Your task to perform on an android device: Clear the cart on target. Add macbook air to the cart on target, then select checkout. Image 0: 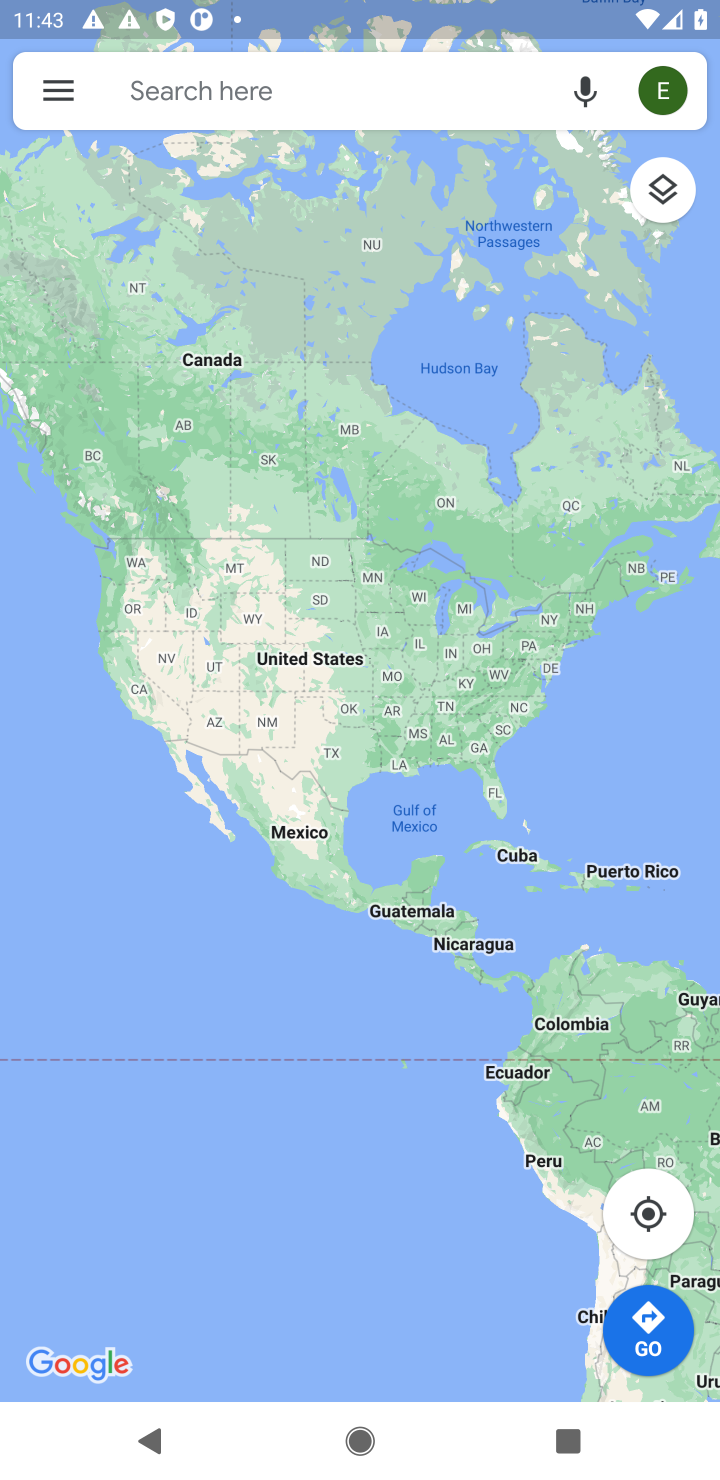
Step 0: press home button
Your task to perform on an android device: Clear the cart on target. Add macbook air to the cart on target, then select checkout. Image 1: 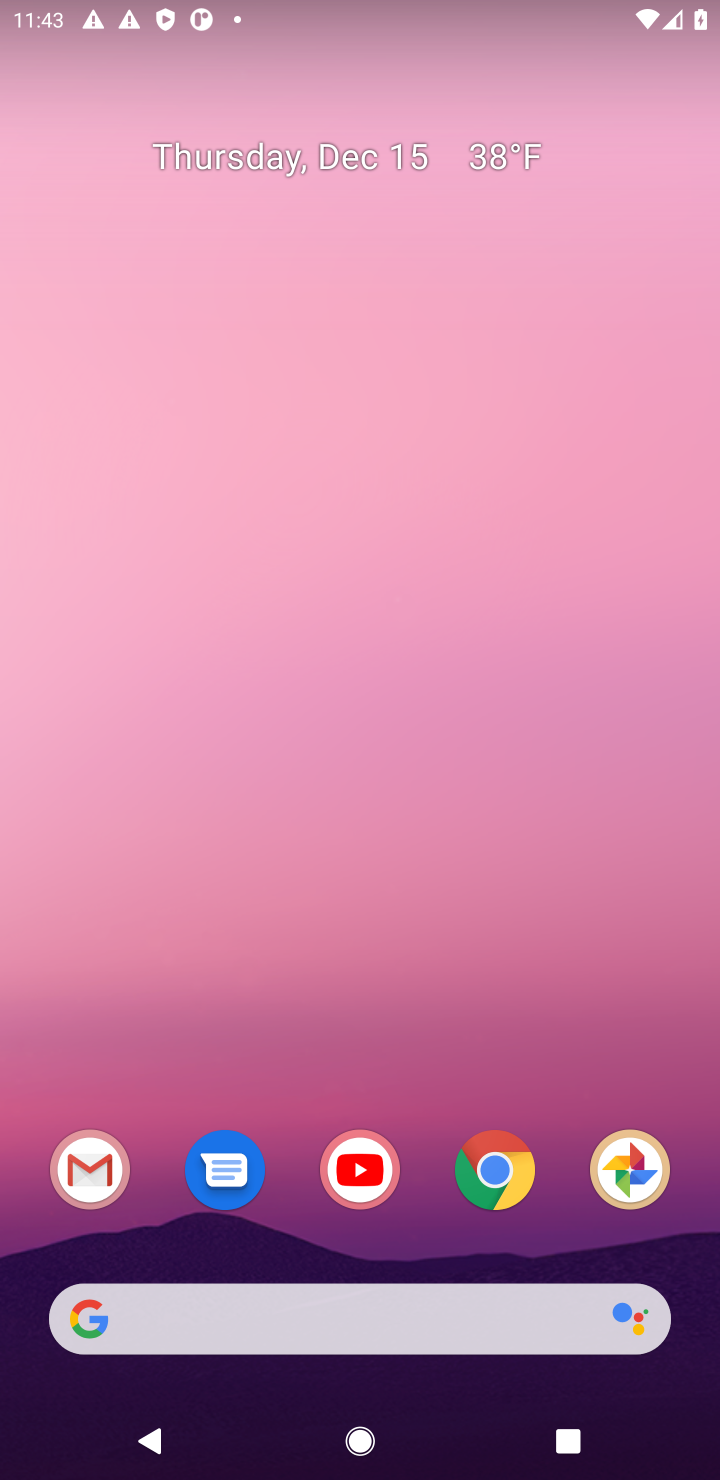
Step 1: click (488, 1184)
Your task to perform on an android device: Clear the cart on target. Add macbook air to the cart on target, then select checkout. Image 2: 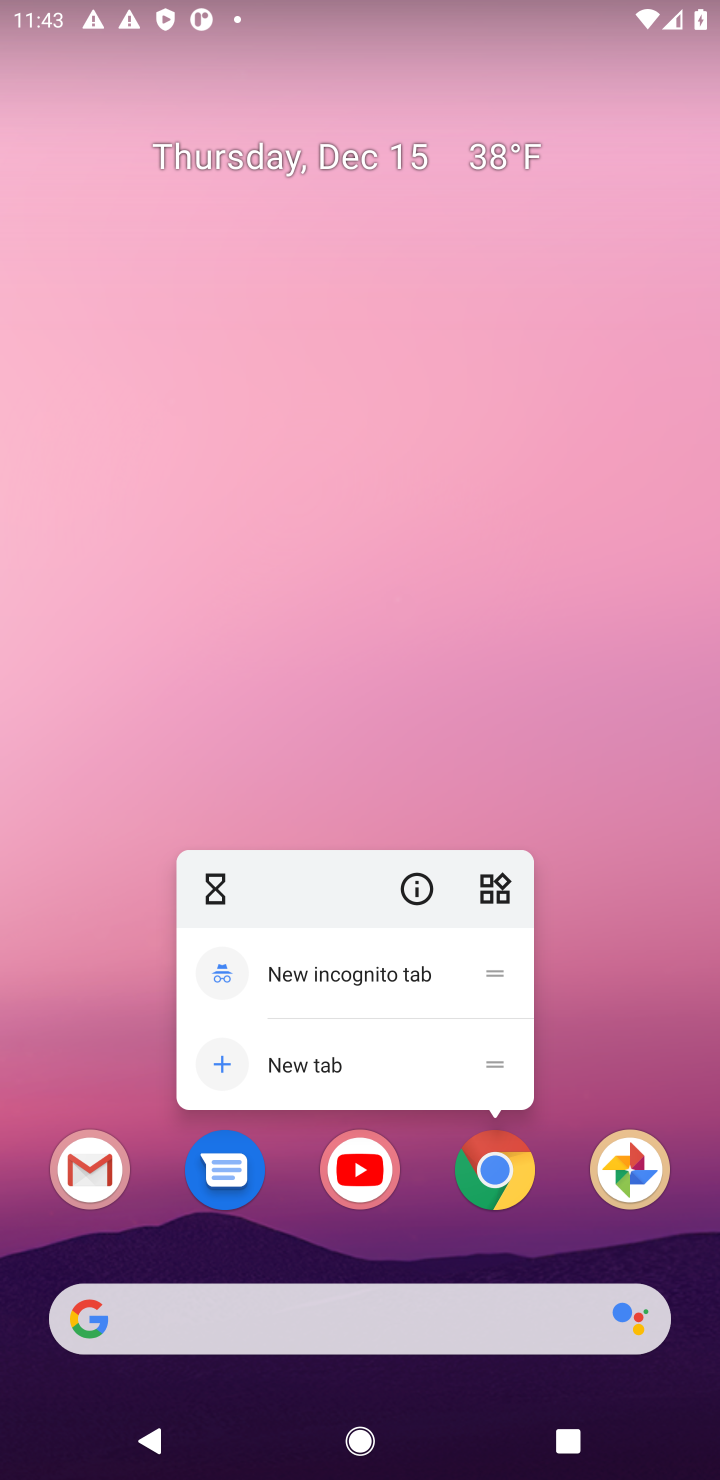
Step 2: click (488, 1184)
Your task to perform on an android device: Clear the cart on target. Add macbook air to the cart on target, then select checkout. Image 3: 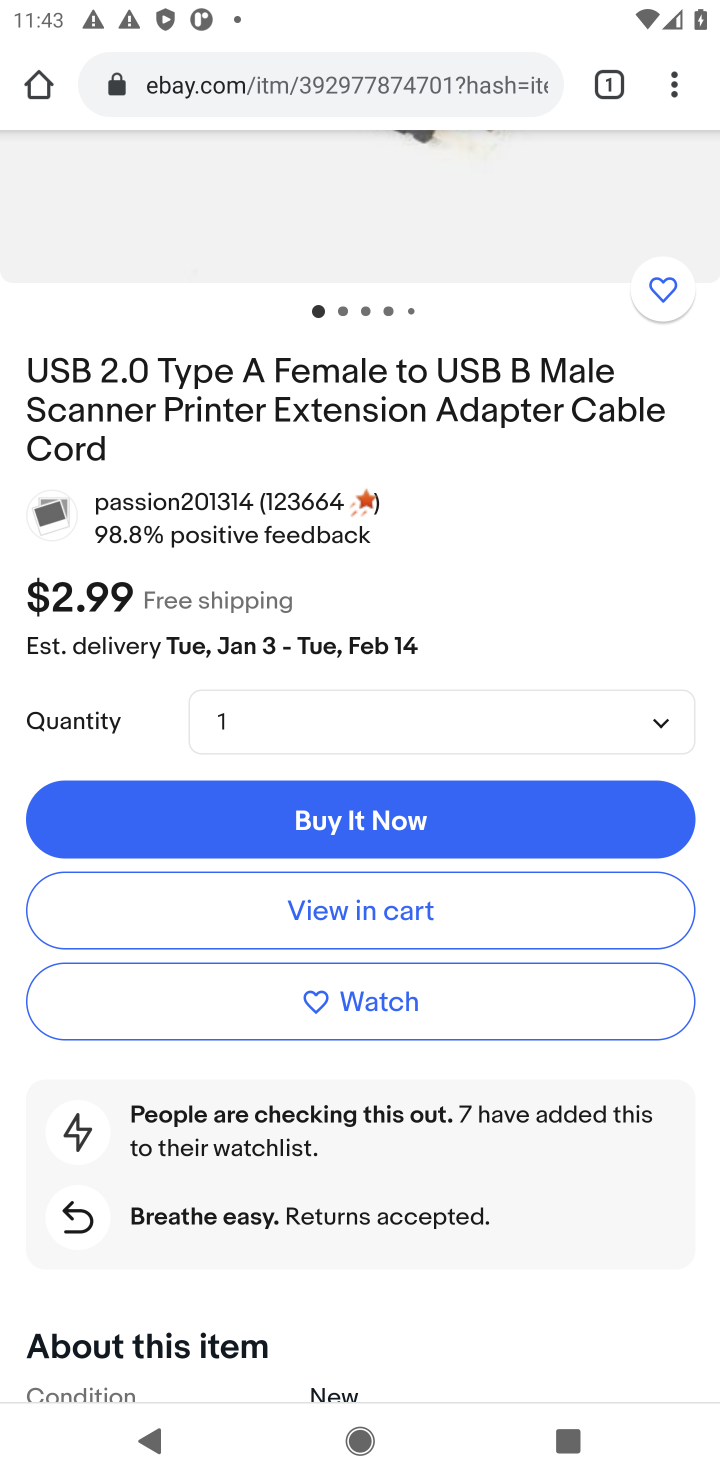
Step 3: click (315, 94)
Your task to perform on an android device: Clear the cart on target. Add macbook air to the cart on target, then select checkout. Image 4: 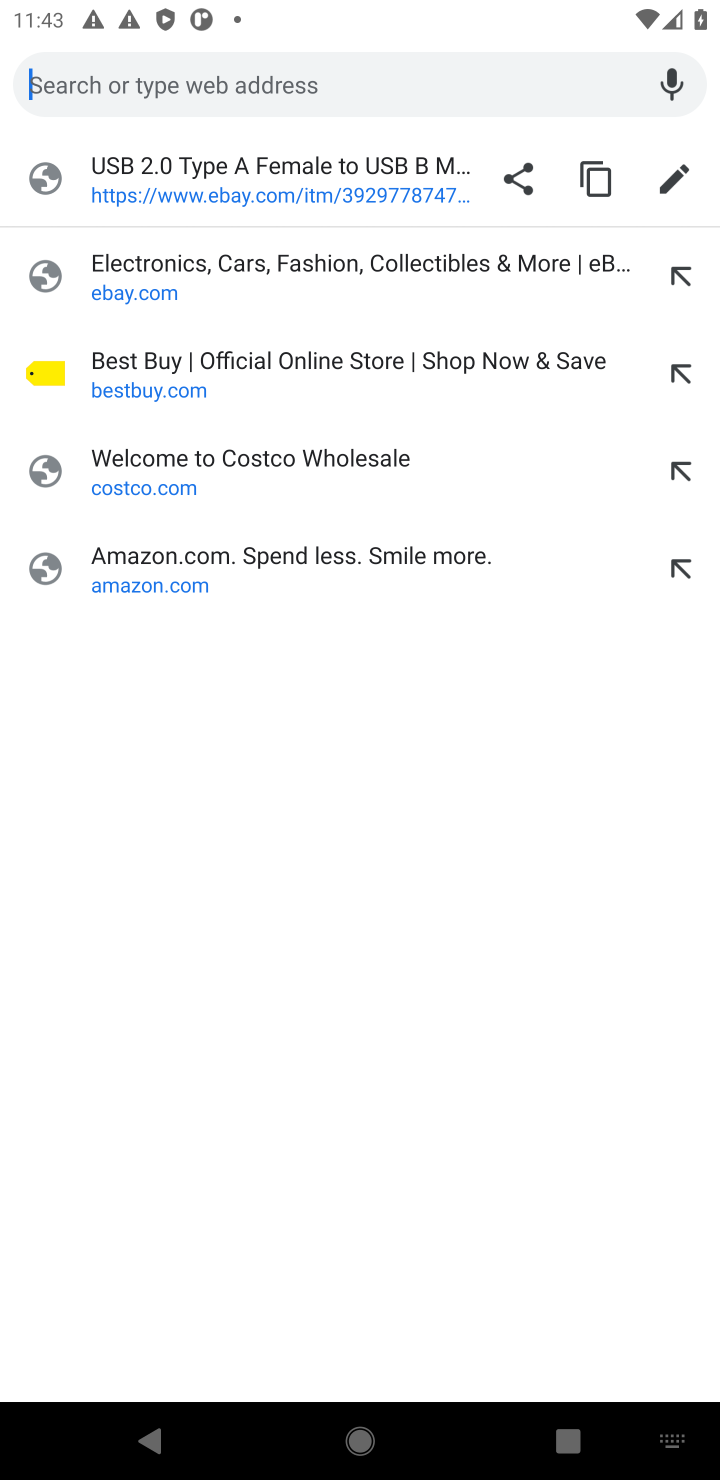
Step 4: type "target.com"
Your task to perform on an android device: Clear the cart on target. Add macbook air to the cart on target, then select checkout. Image 5: 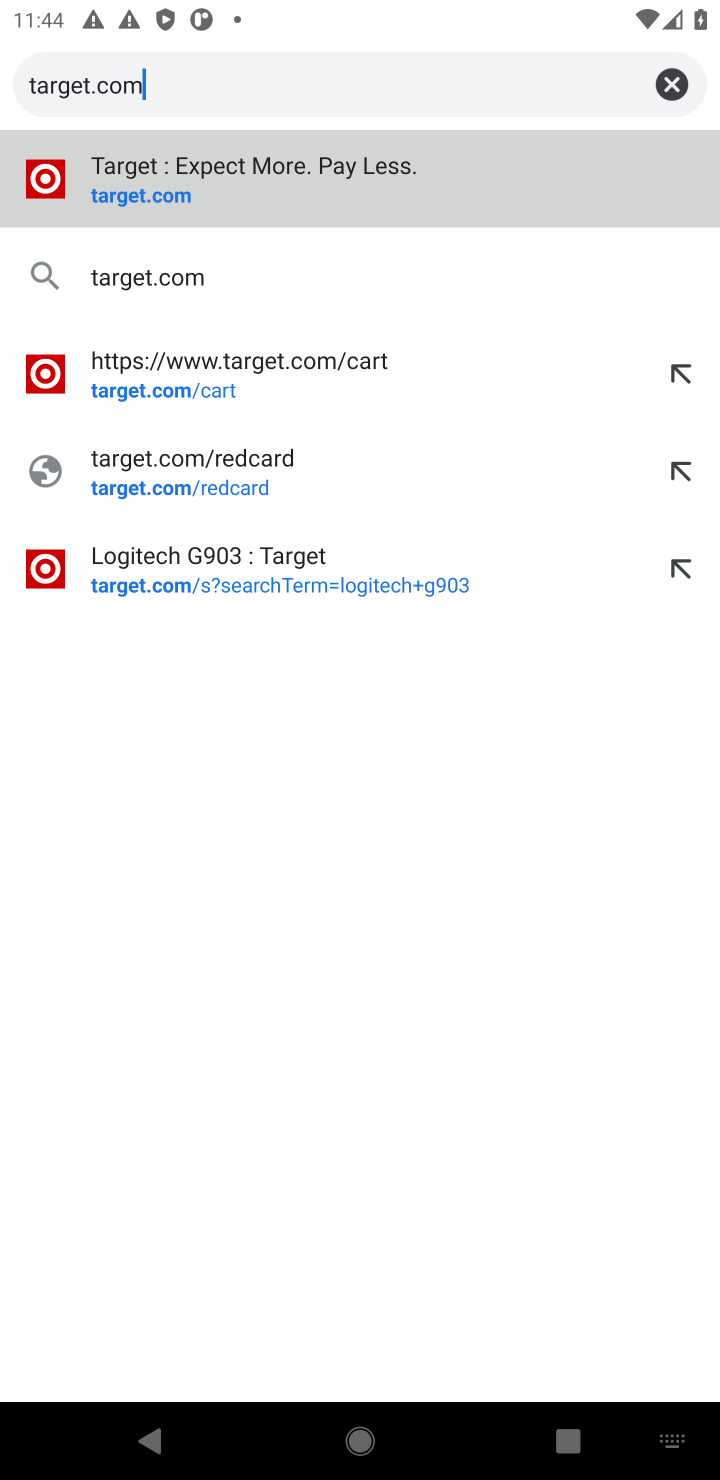
Step 5: click (138, 193)
Your task to perform on an android device: Clear the cart on target. Add macbook air to the cart on target, then select checkout. Image 6: 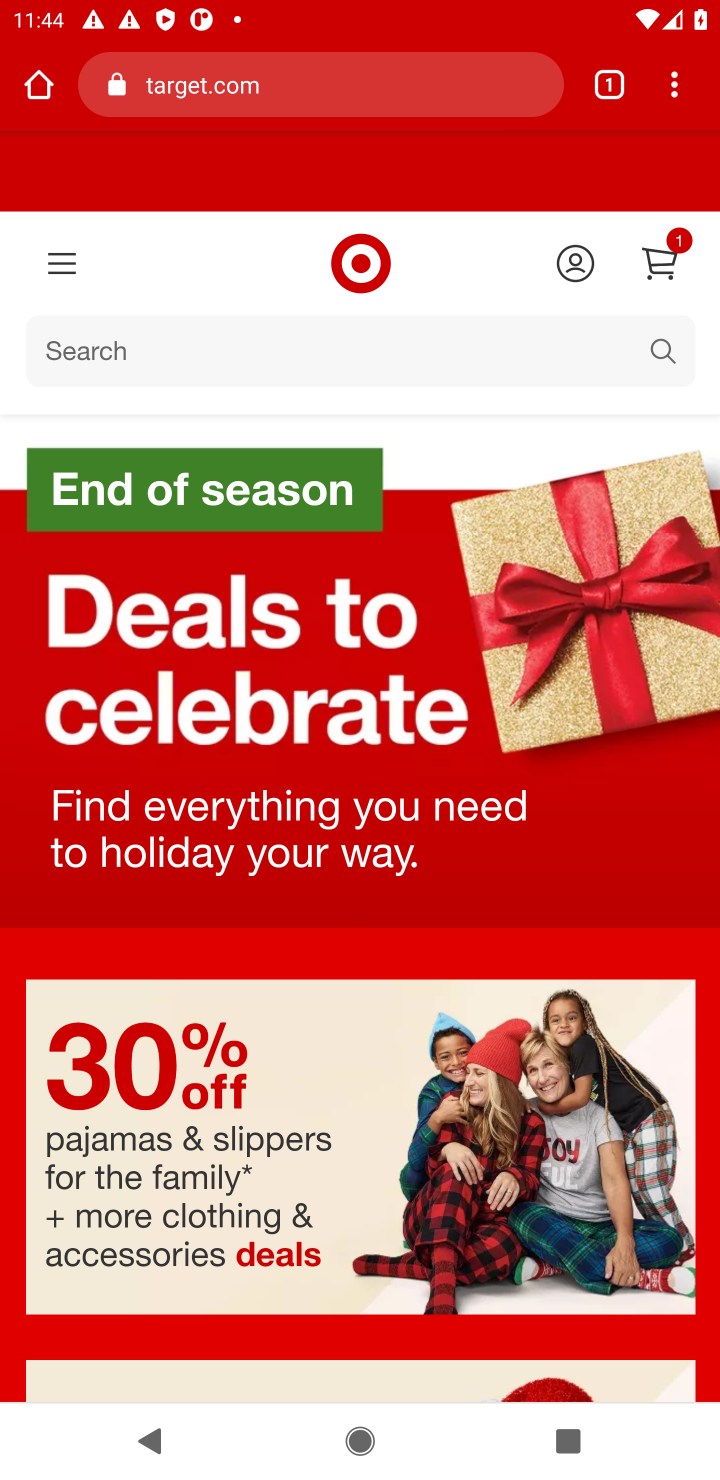
Step 6: click (657, 265)
Your task to perform on an android device: Clear the cart on target. Add macbook air to the cart on target, then select checkout. Image 7: 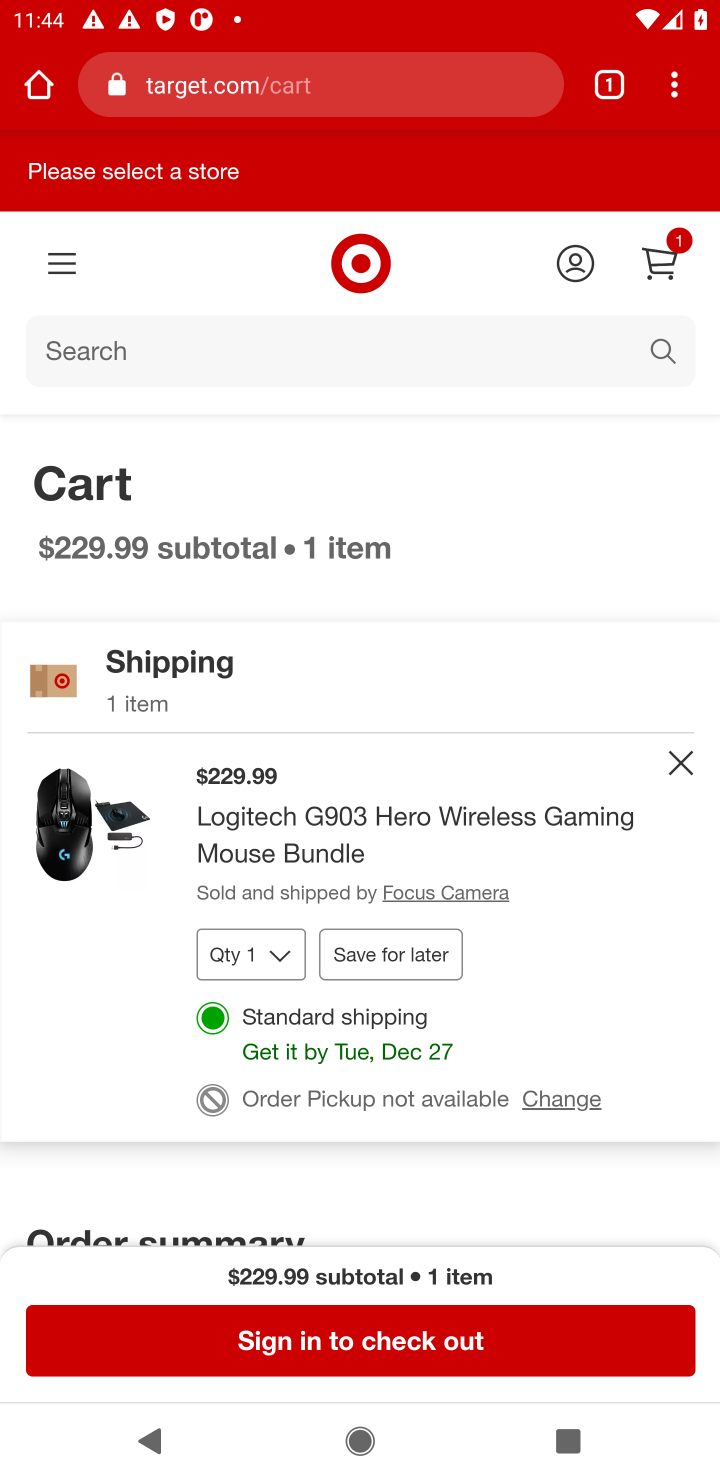
Step 7: click (683, 752)
Your task to perform on an android device: Clear the cart on target. Add macbook air to the cart on target, then select checkout. Image 8: 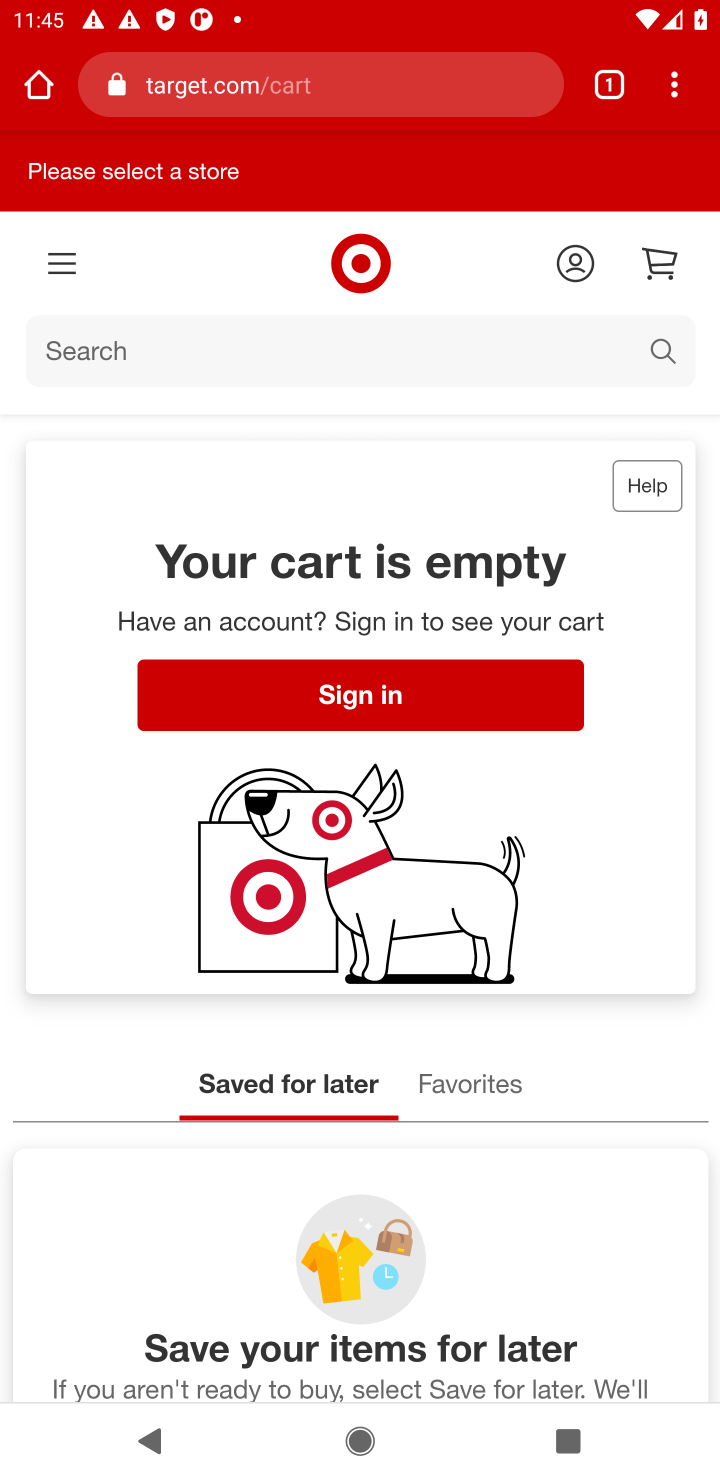
Step 8: click (84, 351)
Your task to perform on an android device: Clear the cart on target. Add macbook air to the cart on target, then select checkout. Image 9: 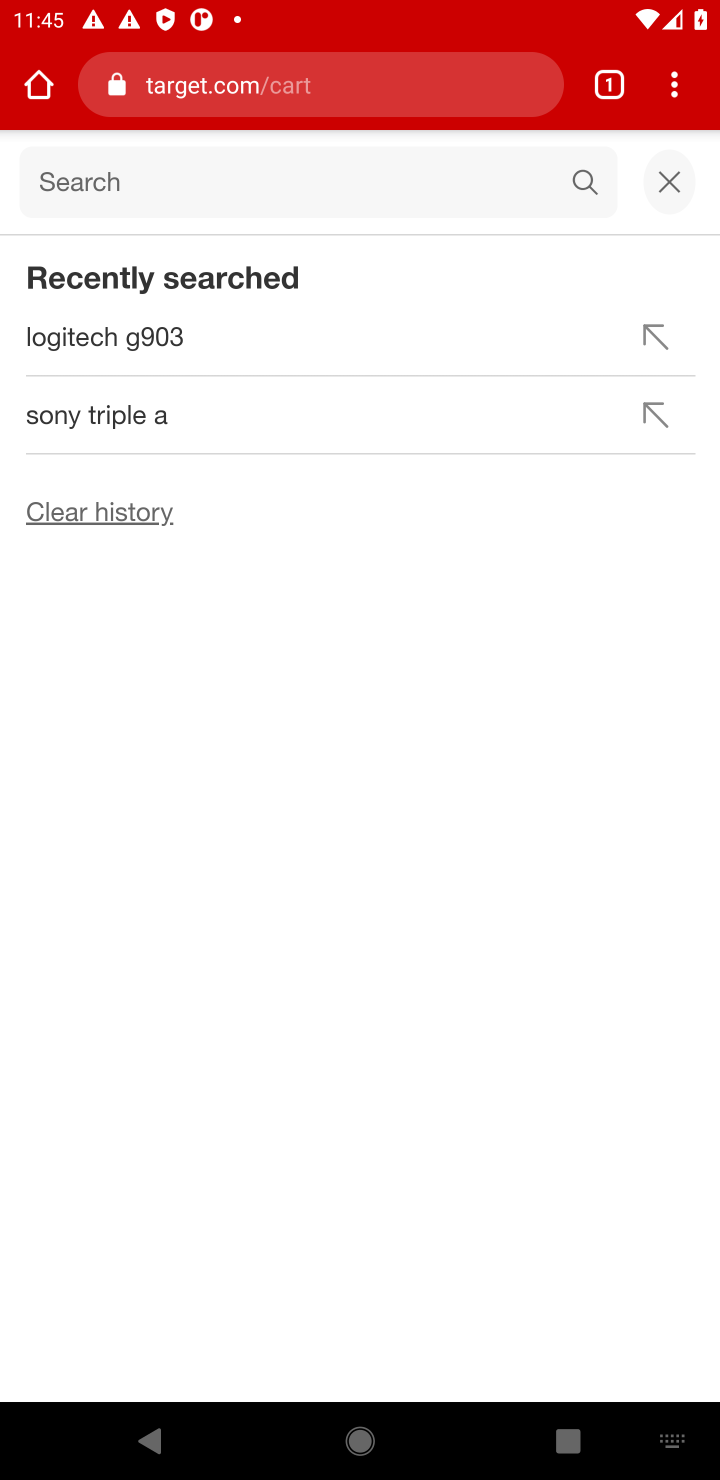
Step 9: type "macbook air"
Your task to perform on an android device: Clear the cart on target. Add macbook air to the cart on target, then select checkout. Image 10: 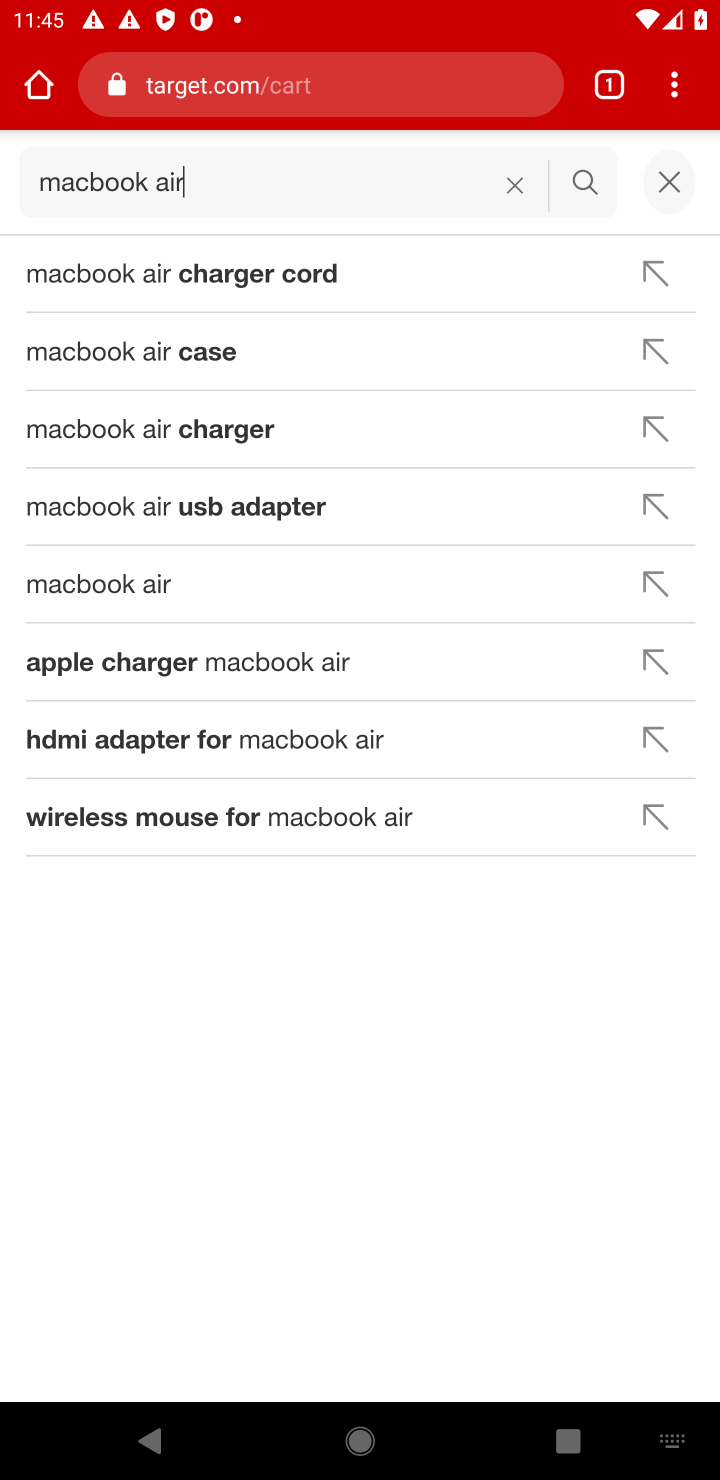
Step 10: click (93, 583)
Your task to perform on an android device: Clear the cart on target. Add macbook air to the cart on target, then select checkout. Image 11: 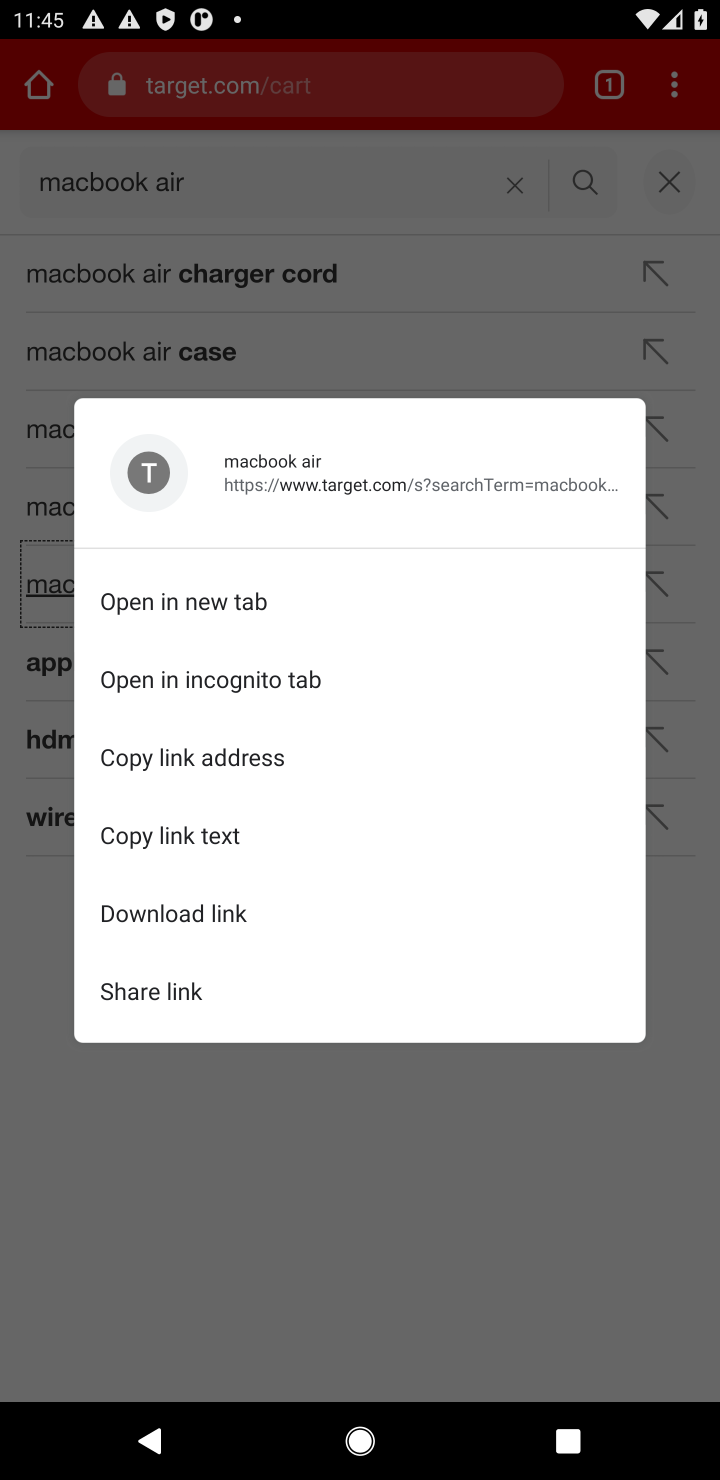
Step 11: click (37, 594)
Your task to perform on an android device: Clear the cart on target. Add macbook air to the cart on target, then select checkout. Image 12: 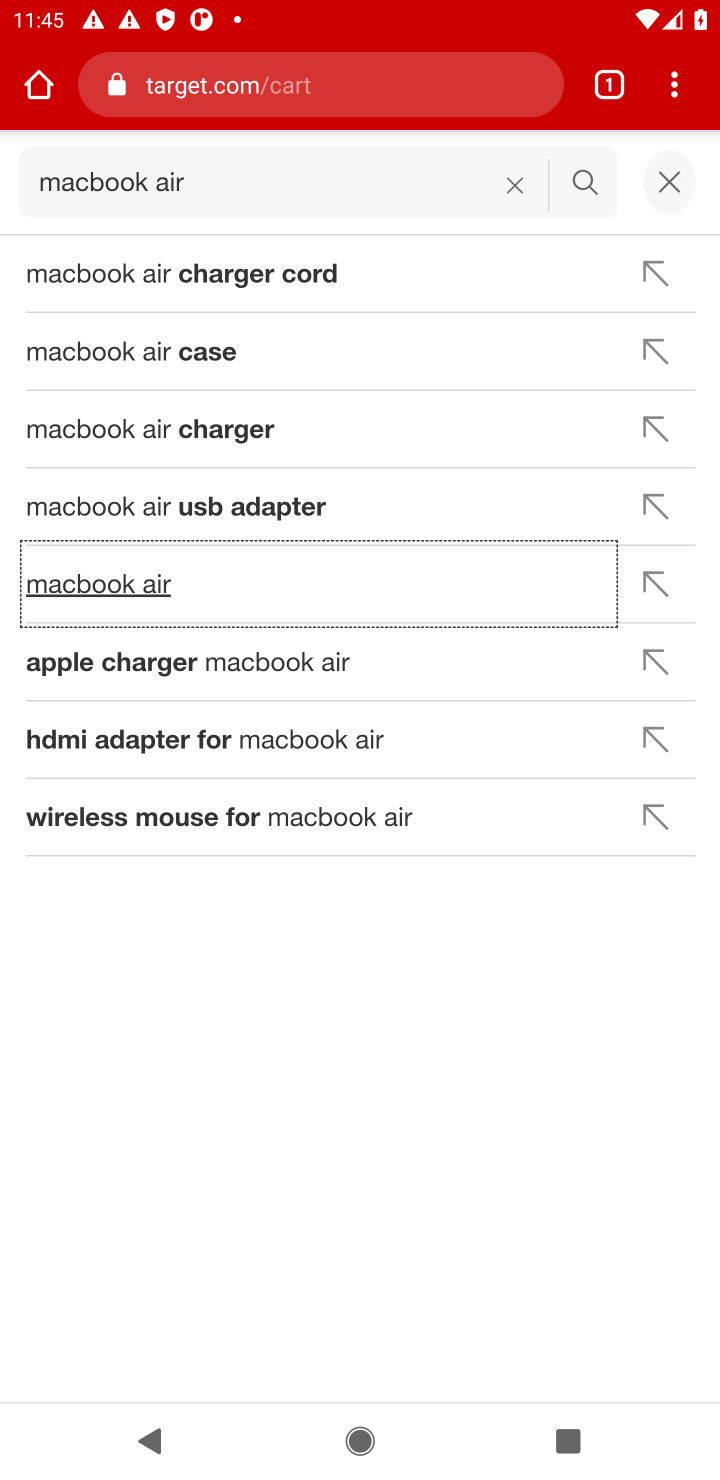
Step 12: click (63, 583)
Your task to perform on an android device: Clear the cart on target. Add macbook air to the cart on target, then select checkout. Image 13: 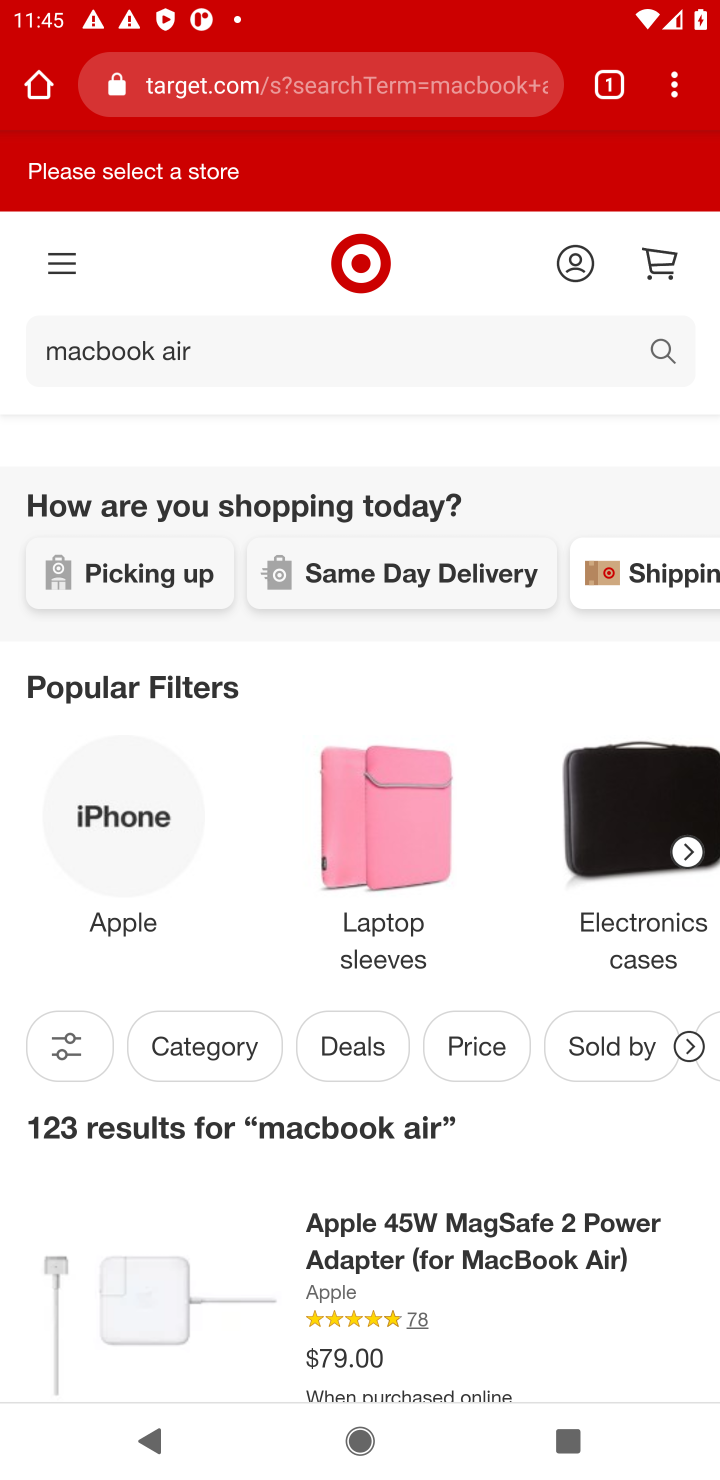
Step 13: drag from (283, 915) to (297, 460)
Your task to perform on an android device: Clear the cart on target. Add macbook air to the cart on target, then select checkout. Image 14: 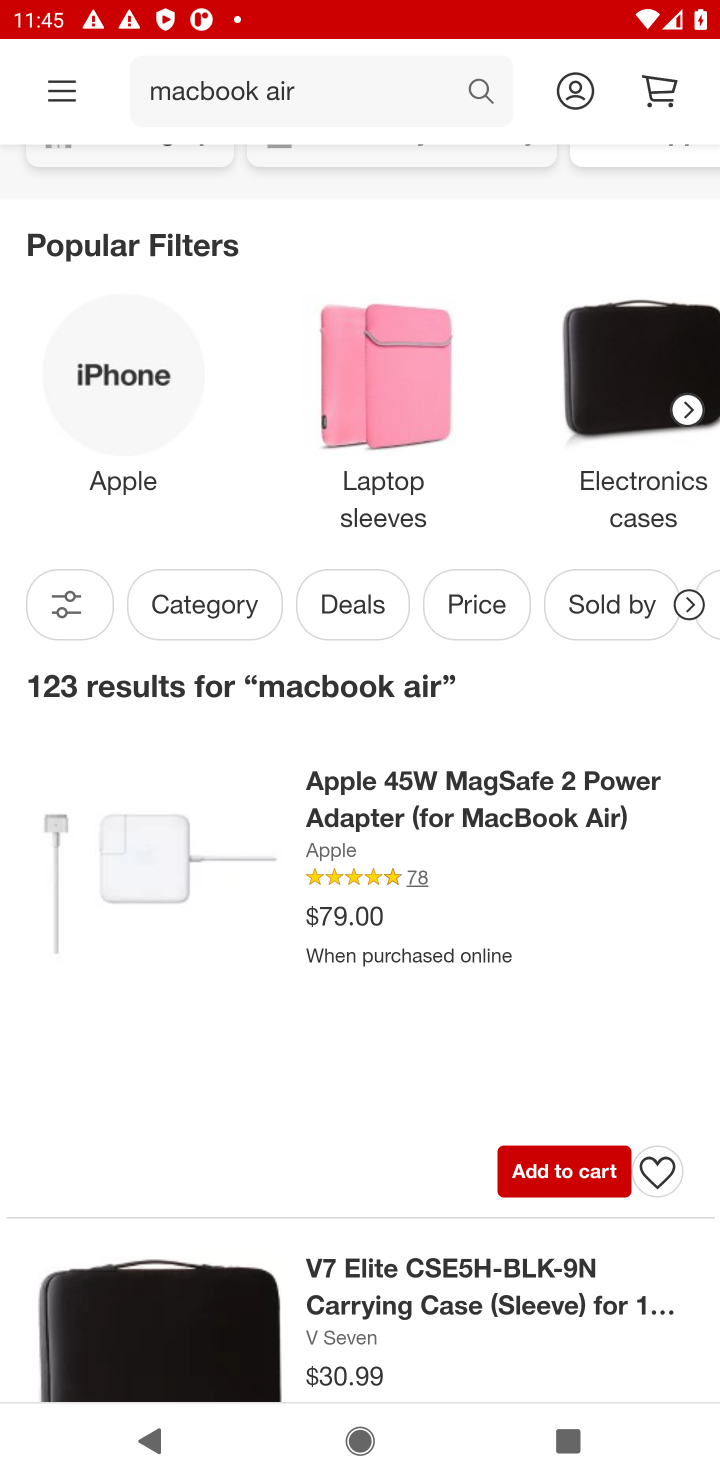
Step 14: click (556, 1170)
Your task to perform on an android device: Clear the cart on target. Add macbook air to the cart on target, then select checkout. Image 15: 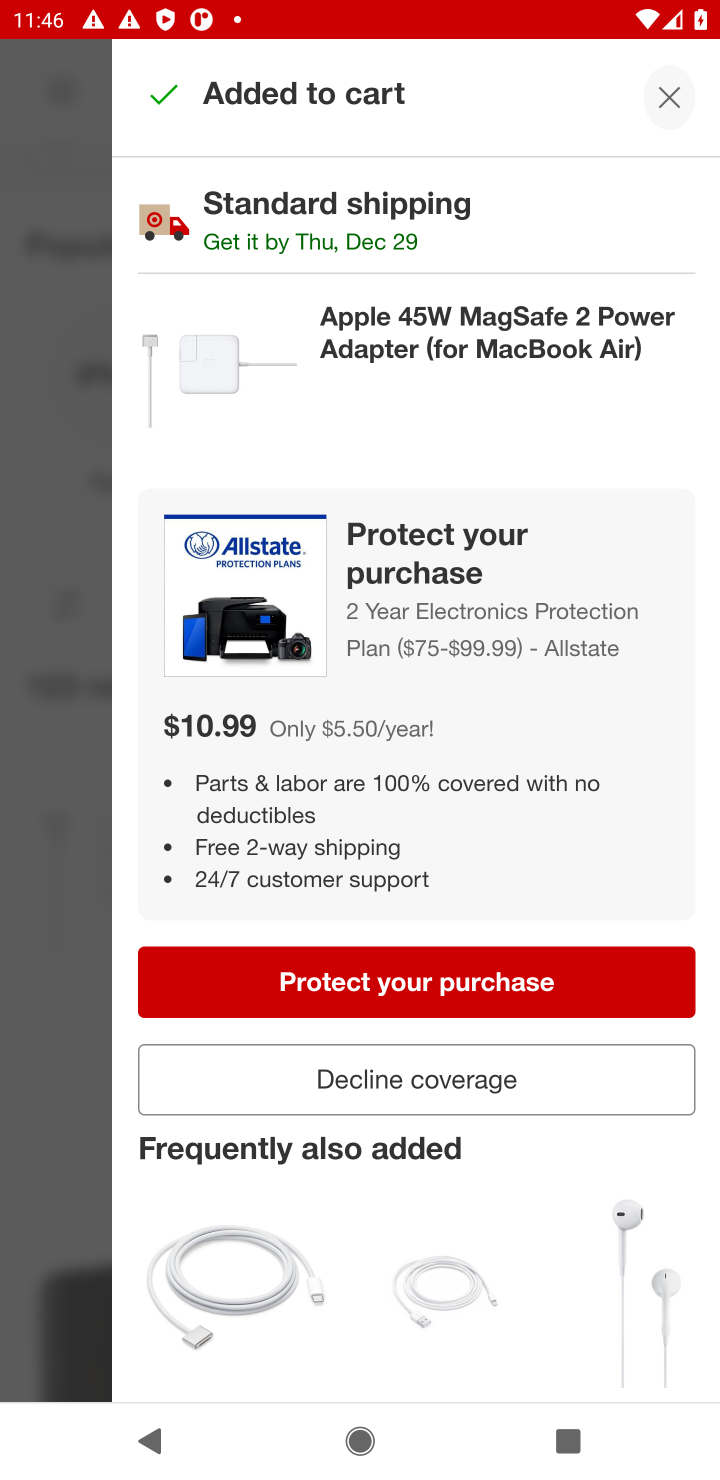
Step 15: click (666, 98)
Your task to perform on an android device: Clear the cart on target. Add macbook air to the cart on target, then select checkout. Image 16: 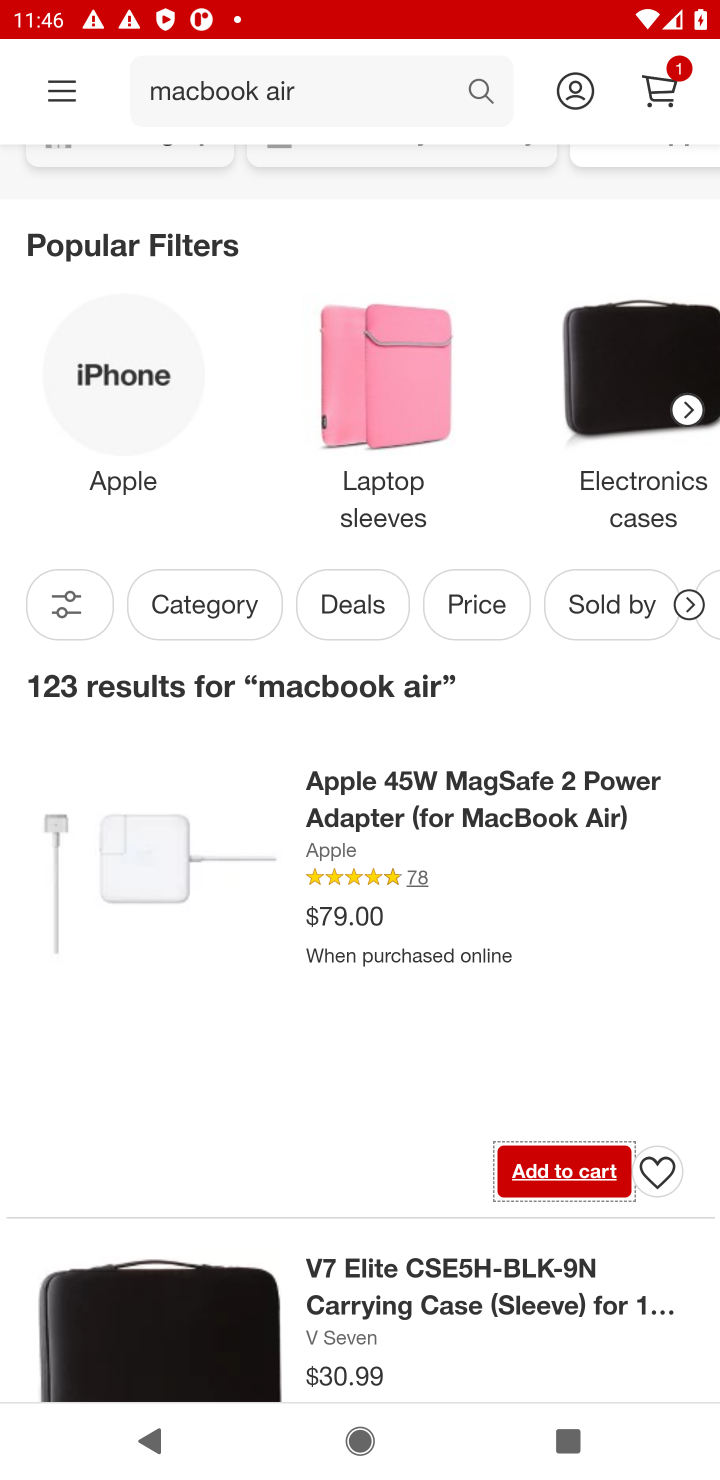
Step 16: click (659, 95)
Your task to perform on an android device: Clear the cart on target. Add macbook air to the cart on target, then select checkout. Image 17: 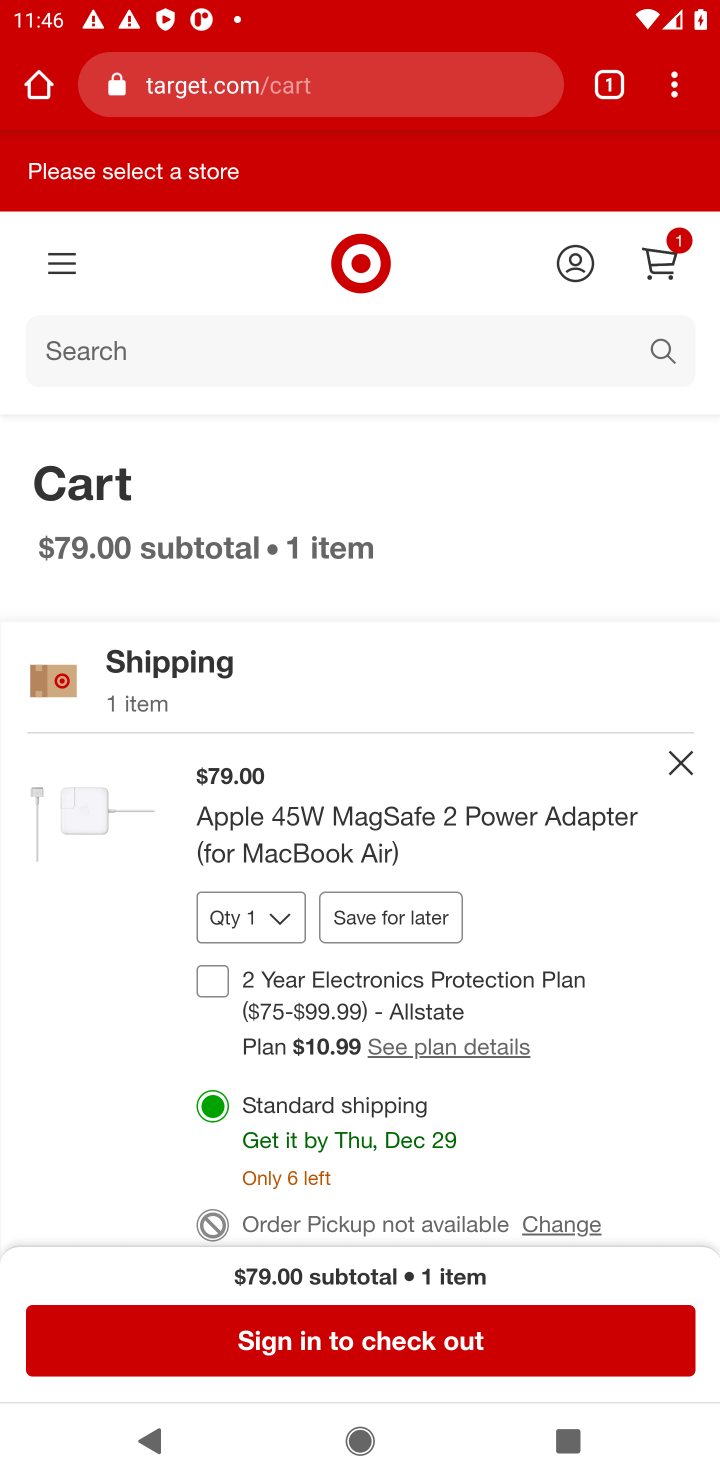
Step 17: click (357, 1346)
Your task to perform on an android device: Clear the cart on target. Add macbook air to the cart on target, then select checkout. Image 18: 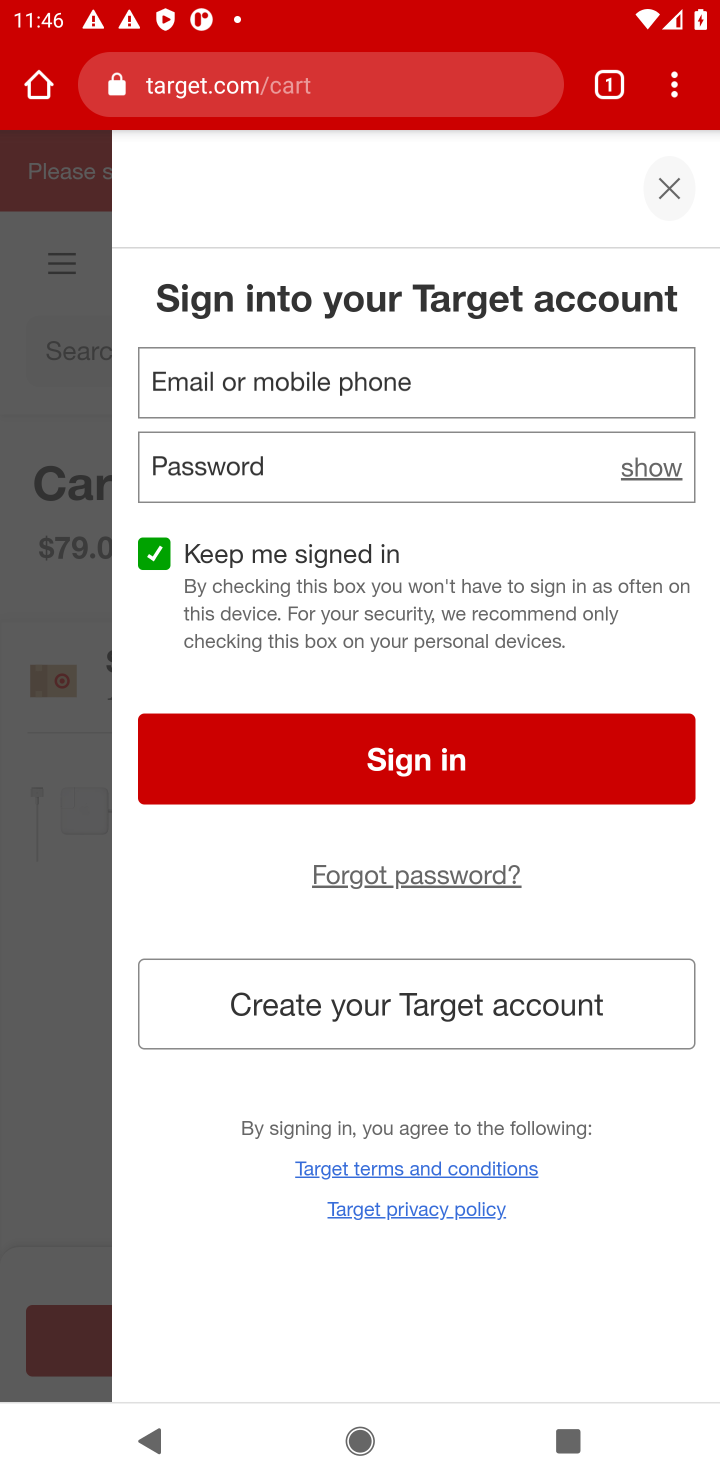
Step 18: task complete